Your task to perform on an android device: What's on my calendar tomorrow? Image 0: 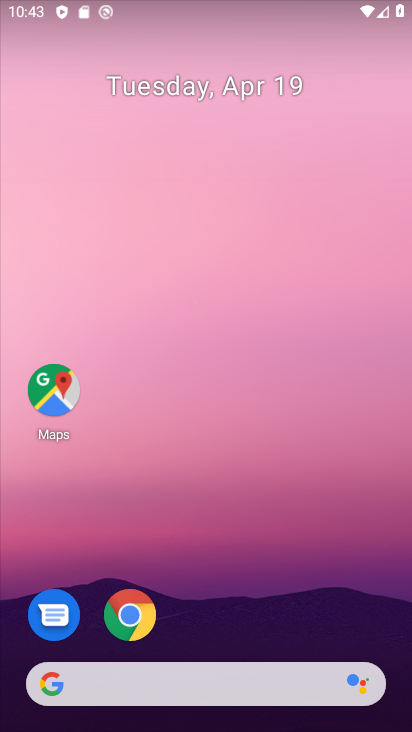
Step 0: drag from (183, 578) to (182, 343)
Your task to perform on an android device: What's on my calendar tomorrow? Image 1: 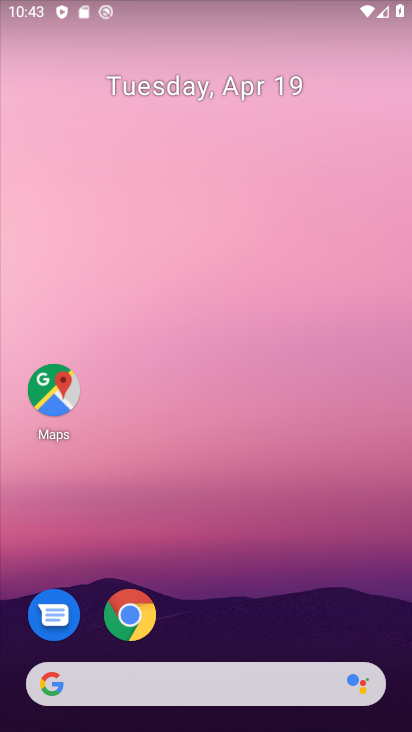
Step 1: drag from (219, 653) to (197, 268)
Your task to perform on an android device: What's on my calendar tomorrow? Image 2: 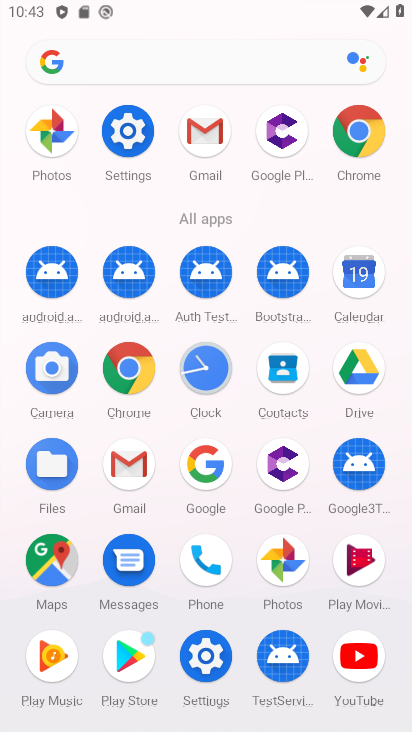
Step 2: click (372, 277)
Your task to perform on an android device: What's on my calendar tomorrow? Image 3: 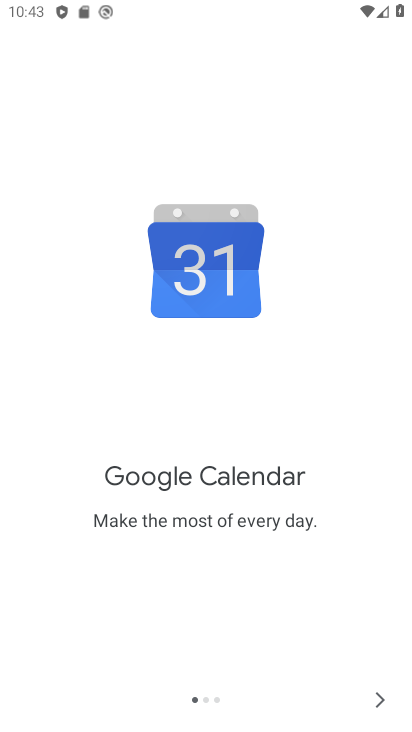
Step 3: click (370, 703)
Your task to perform on an android device: What's on my calendar tomorrow? Image 4: 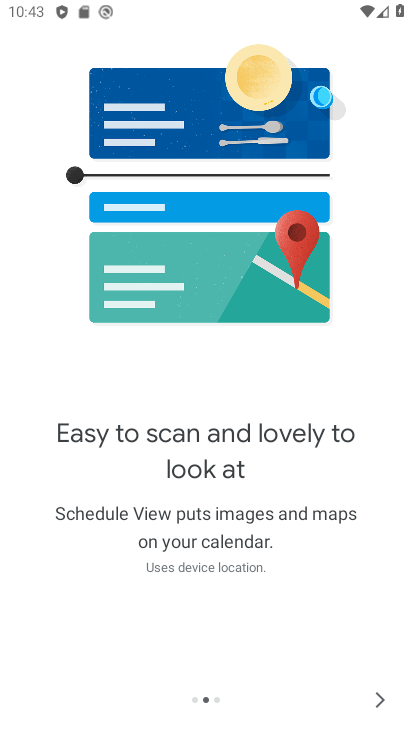
Step 4: click (370, 703)
Your task to perform on an android device: What's on my calendar tomorrow? Image 5: 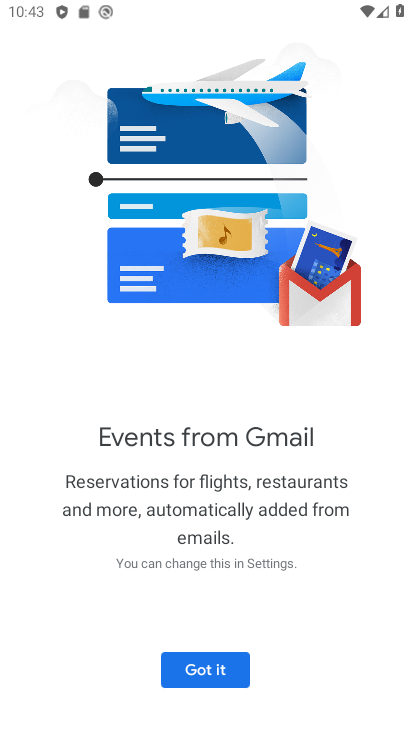
Step 5: click (205, 676)
Your task to perform on an android device: What's on my calendar tomorrow? Image 6: 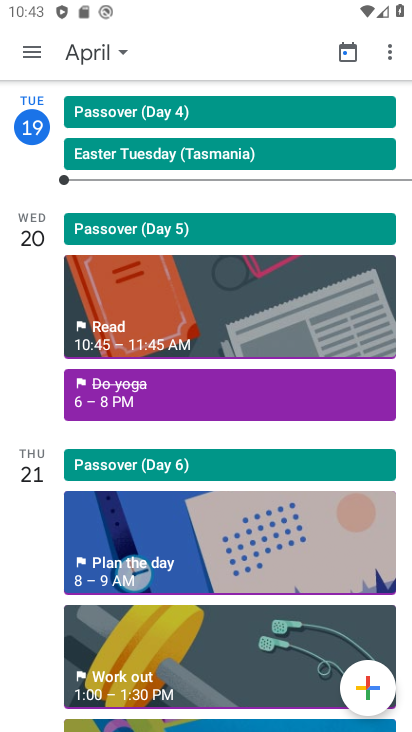
Step 6: click (94, 57)
Your task to perform on an android device: What's on my calendar tomorrow? Image 7: 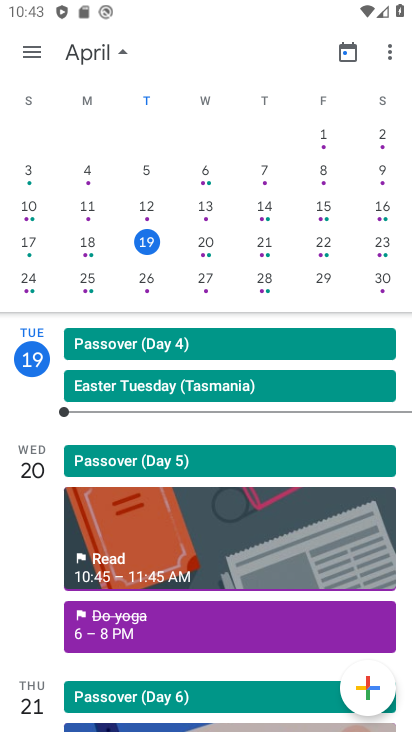
Step 7: click (201, 244)
Your task to perform on an android device: What's on my calendar tomorrow? Image 8: 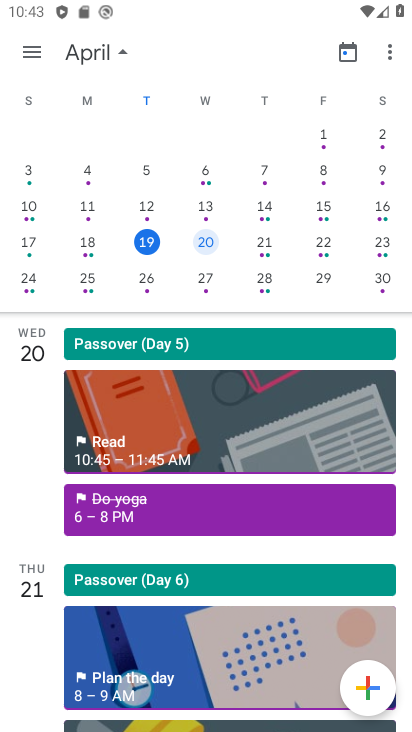
Step 8: task complete